Your task to perform on an android device: turn off data saver in the chrome app Image 0: 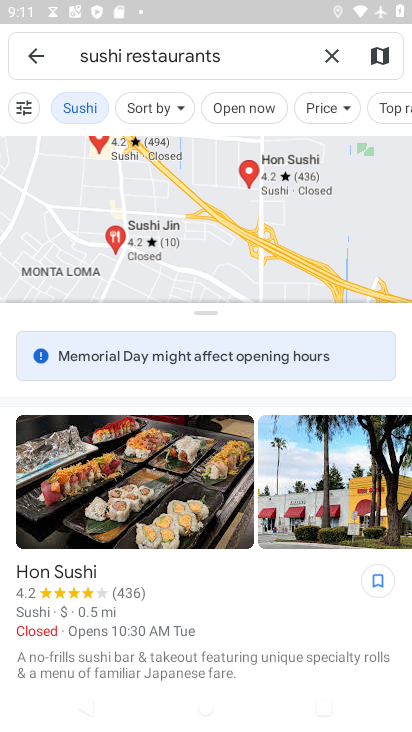
Step 0: press home button
Your task to perform on an android device: turn off data saver in the chrome app Image 1: 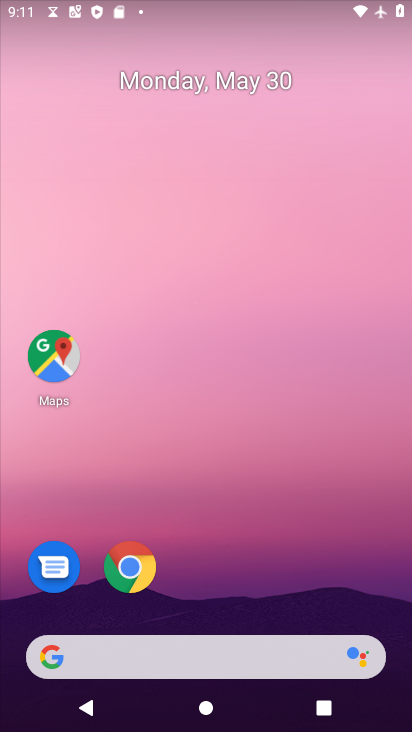
Step 1: click (130, 571)
Your task to perform on an android device: turn off data saver in the chrome app Image 2: 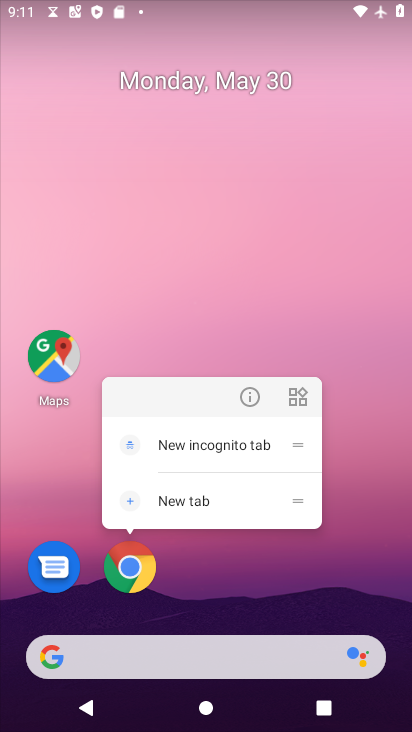
Step 2: click (130, 571)
Your task to perform on an android device: turn off data saver in the chrome app Image 3: 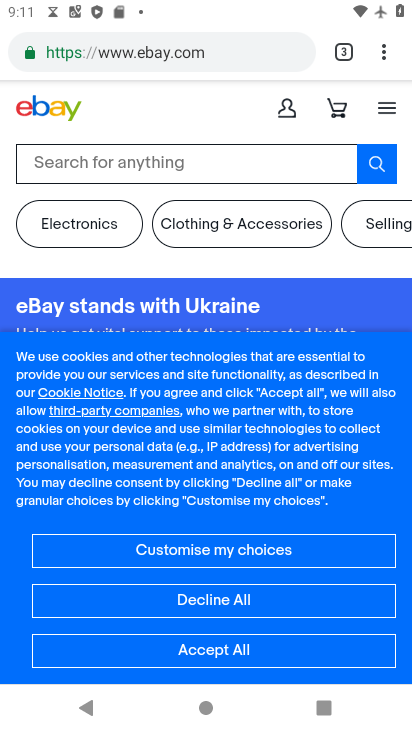
Step 3: click (386, 64)
Your task to perform on an android device: turn off data saver in the chrome app Image 4: 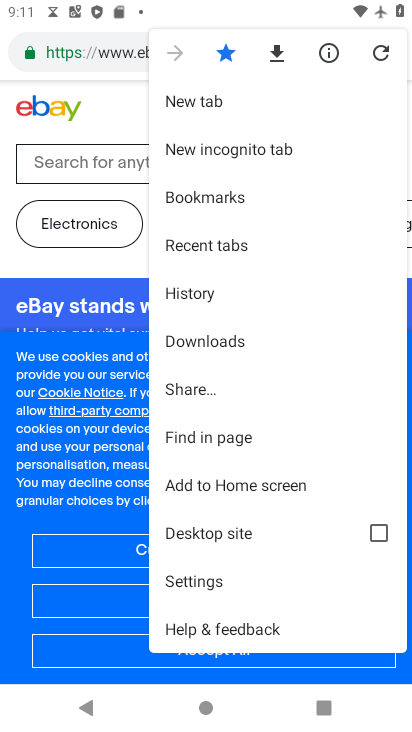
Step 4: click (227, 592)
Your task to perform on an android device: turn off data saver in the chrome app Image 5: 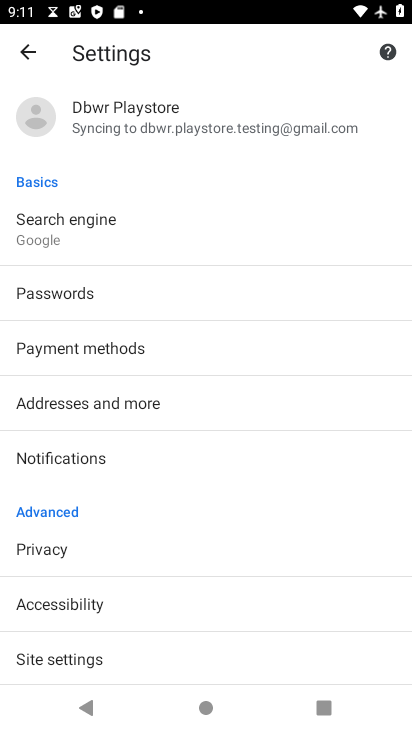
Step 5: drag from (211, 629) to (206, 315)
Your task to perform on an android device: turn off data saver in the chrome app Image 6: 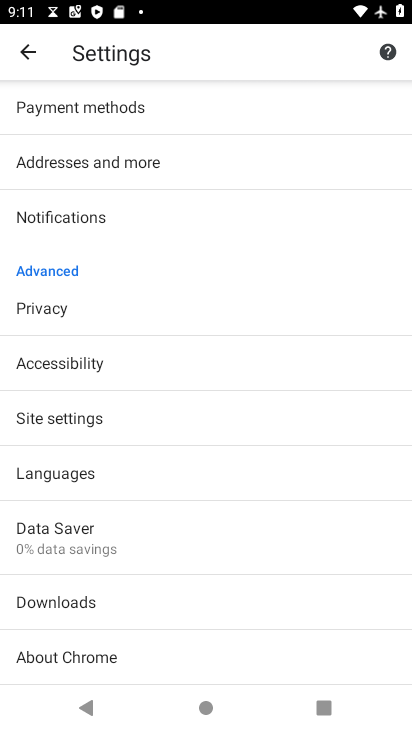
Step 6: click (156, 531)
Your task to perform on an android device: turn off data saver in the chrome app Image 7: 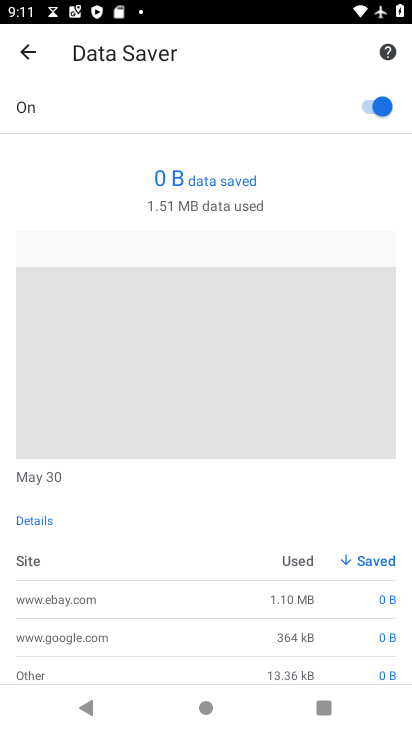
Step 7: click (368, 121)
Your task to perform on an android device: turn off data saver in the chrome app Image 8: 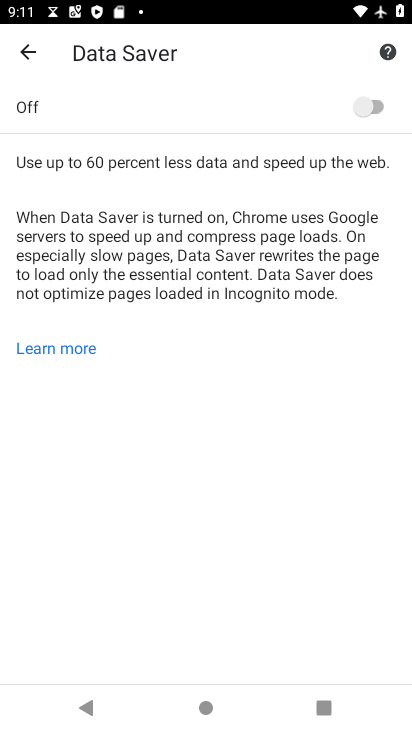
Step 8: task complete